Your task to perform on an android device: change alarm snooze length Image 0: 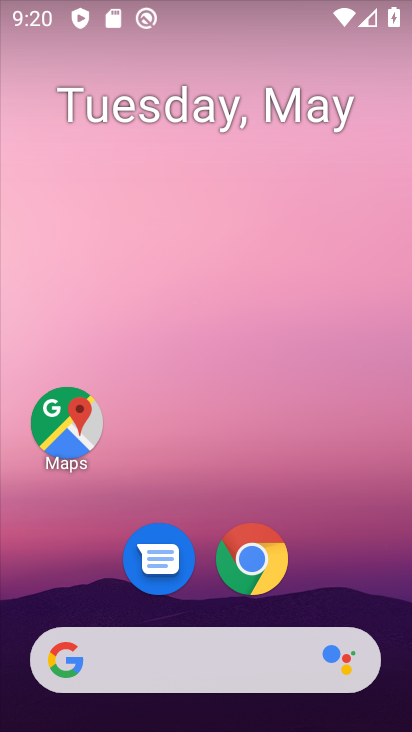
Step 0: drag from (327, 591) to (357, 98)
Your task to perform on an android device: change alarm snooze length Image 1: 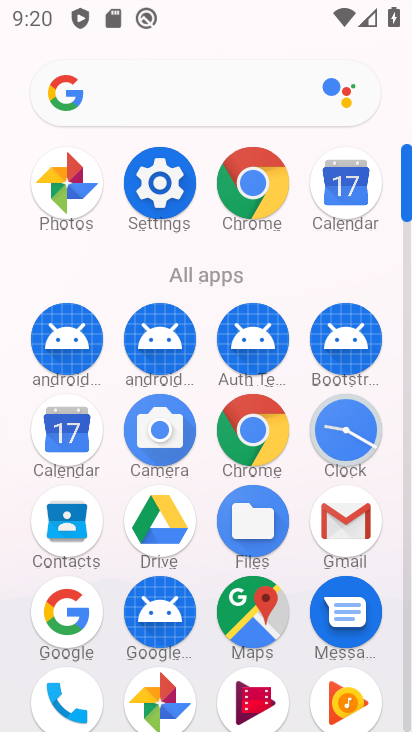
Step 1: click (346, 429)
Your task to perform on an android device: change alarm snooze length Image 2: 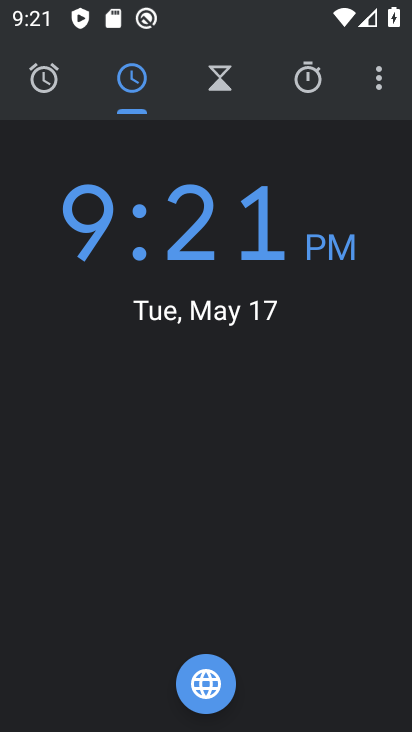
Step 2: drag from (379, 81) to (251, 163)
Your task to perform on an android device: change alarm snooze length Image 3: 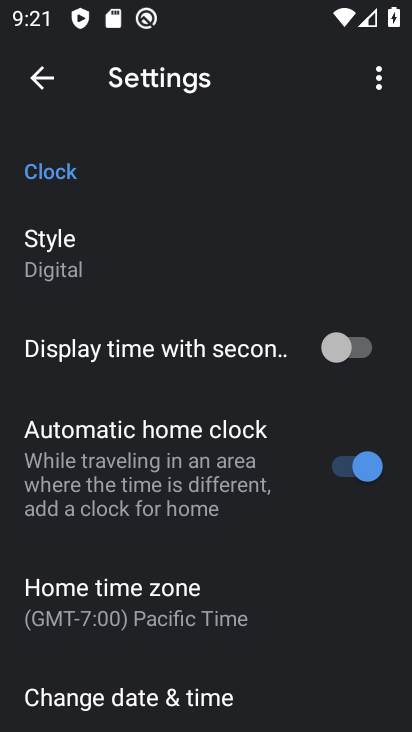
Step 3: drag from (202, 568) to (311, 304)
Your task to perform on an android device: change alarm snooze length Image 4: 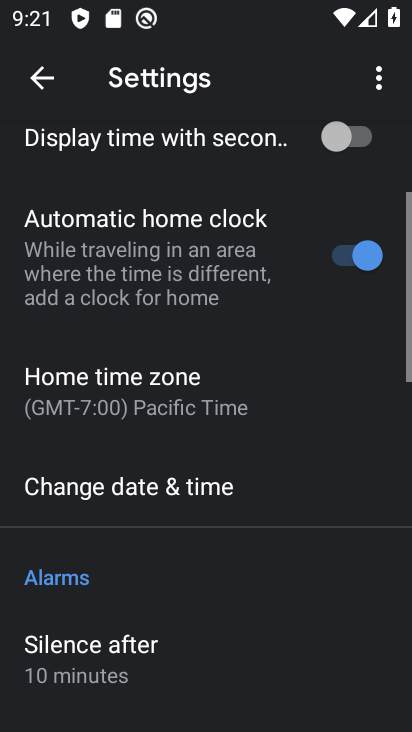
Step 4: drag from (241, 576) to (387, 278)
Your task to perform on an android device: change alarm snooze length Image 5: 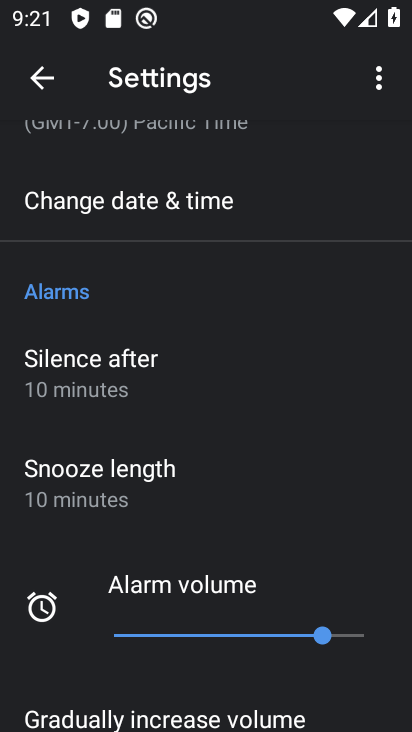
Step 5: click (163, 473)
Your task to perform on an android device: change alarm snooze length Image 6: 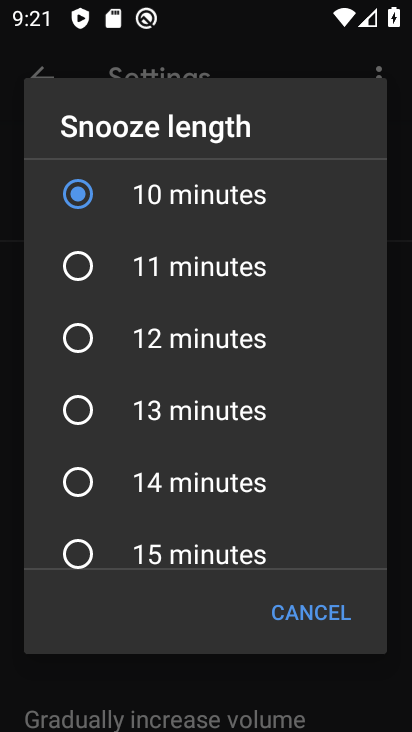
Step 6: click (212, 273)
Your task to perform on an android device: change alarm snooze length Image 7: 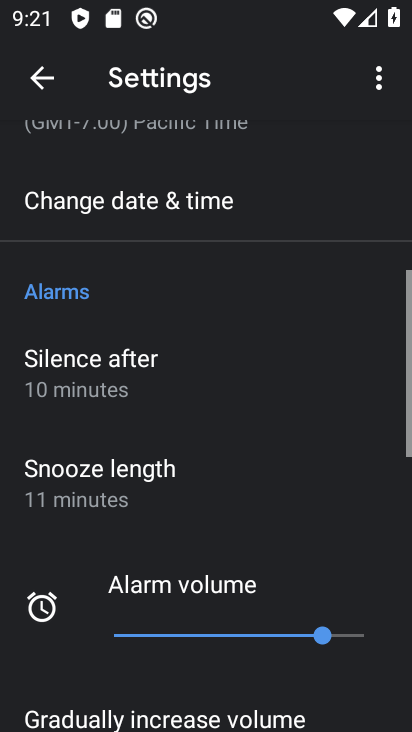
Step 7: task complete